Your task to perform on an android device: Go to display settings Image 0: 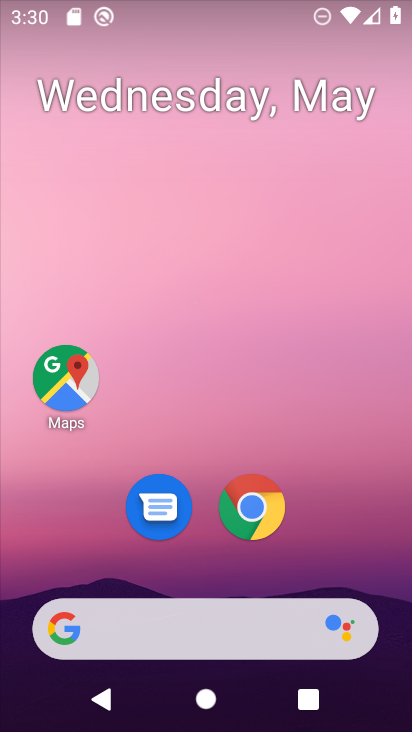
Step 0: drag from (162, 562) to (239, 67)
Your task to perform on an android device: Go to display settings Image 1: 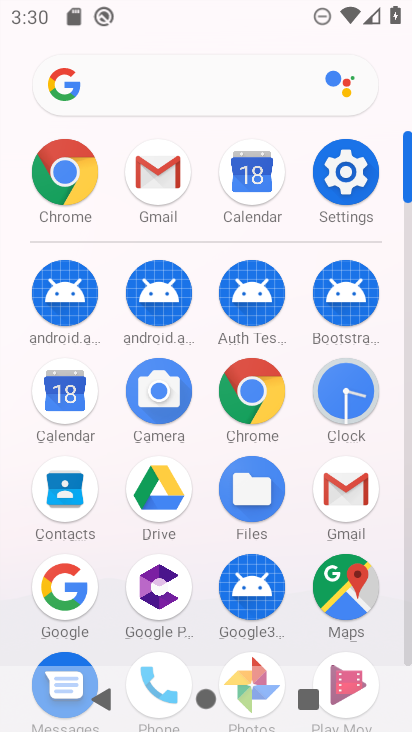
Step 1: click (341, 164)
Your task to perform on an android device: Go to display settings Image 2: 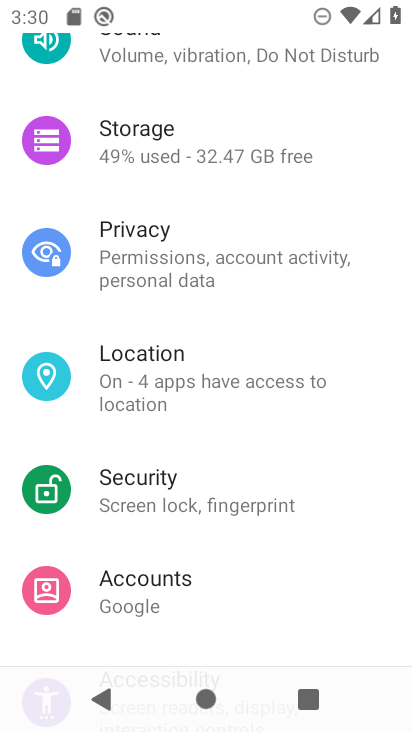
Step 2: drag from (180, 567) to (250, 124)
Your task to perform on an android device: Go to display settings Image 3: 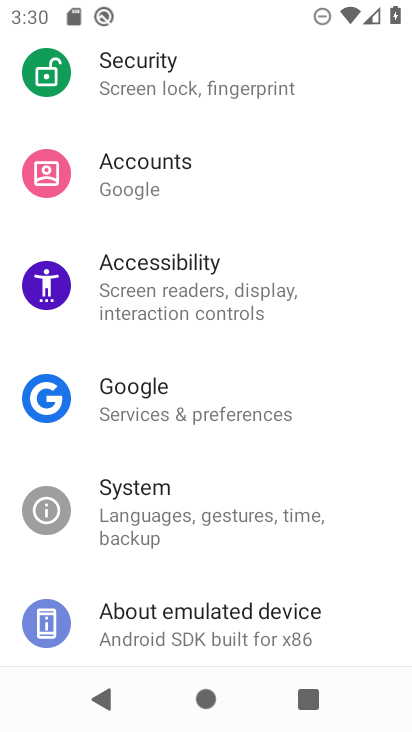
Step 3: drag from (173, 144) to (175, 603)
Your task to perform on an android device: Go to display settings Image 4: 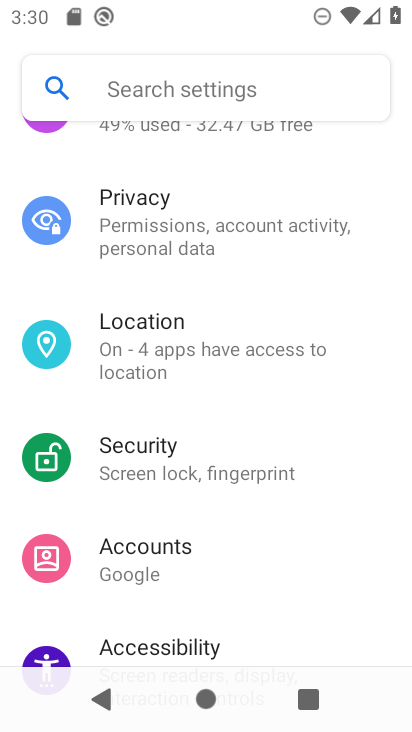
Step 4: drag from (147, 253) to (147, 584)
Your task to perform on an android device: Go to display settings Image 5: 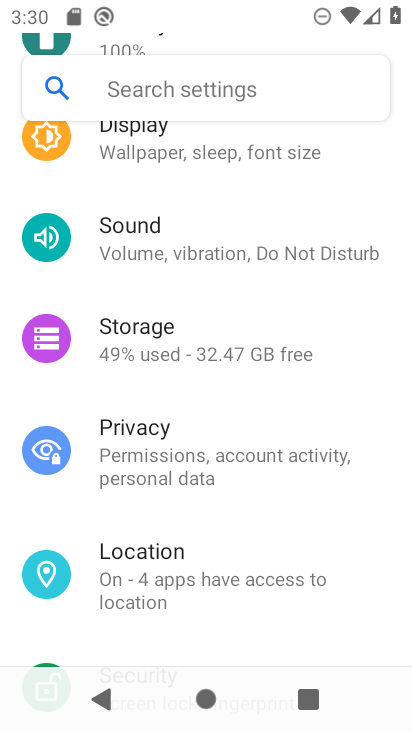
Step 5: click (138, 149)
Your task to perform on an android device: Go to display settings Image 6: 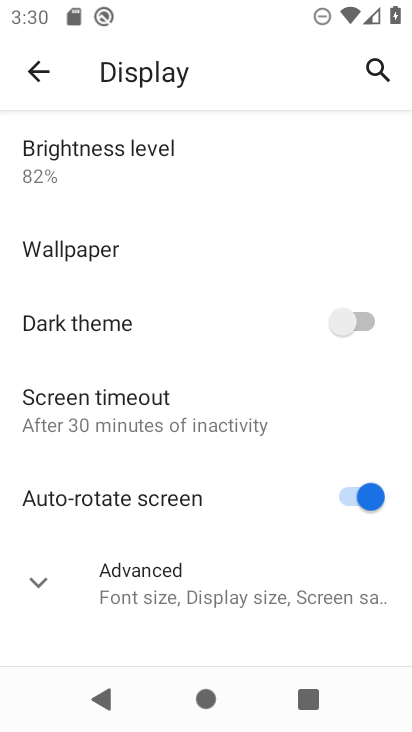
Step 6: task complete